Your task to perform on an android device: toggle improve location accuracy Image 0: 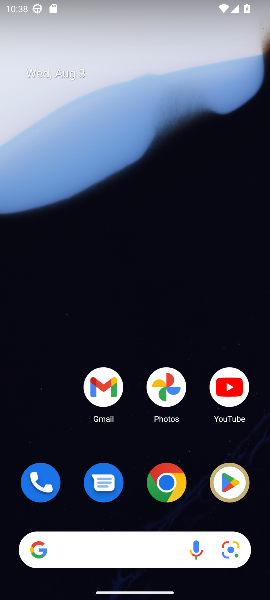
Step 0: task complete